Your task to perform on an android device: turn vacation reply on in the gmail app Image 0: 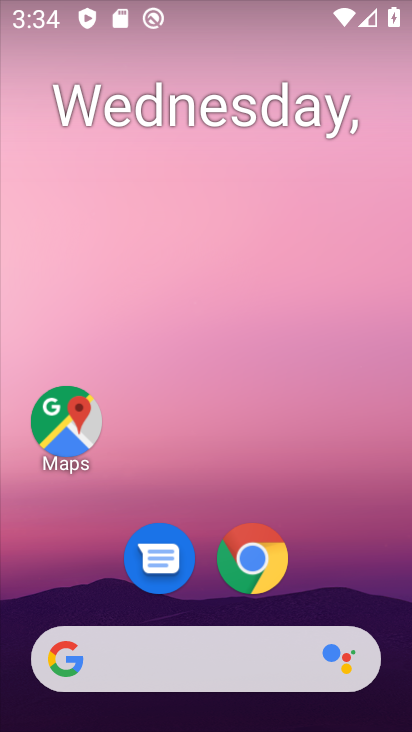
Step 0: drag from (260, 702) to (225, 289)
Your task to perform on an android device: turn vacation reply on in the gmail app Image 1: 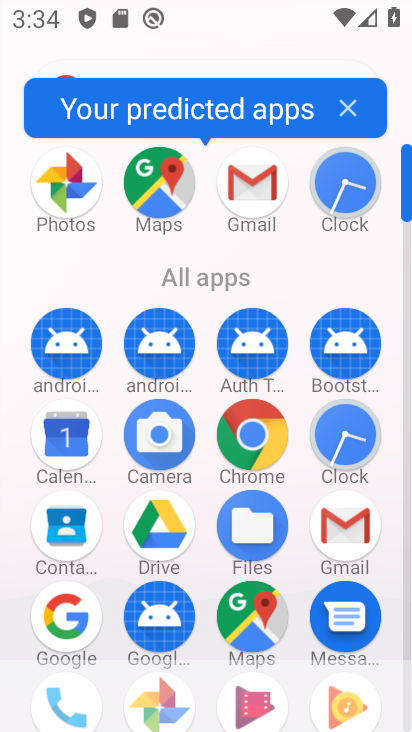
Step 1: click (240, 203)
Your task to perform on an android device: turn vacation reply on in the gmail app Image 2: 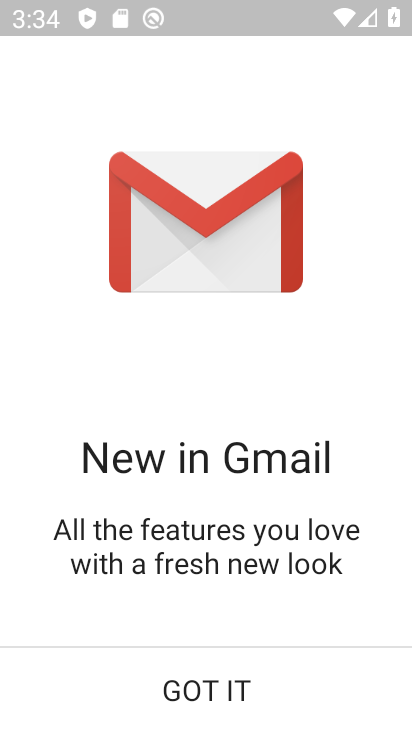
Step 2: click (202, 720)
Your task to perform on an android device: turn vacation reply on in the gmail app Image 3: 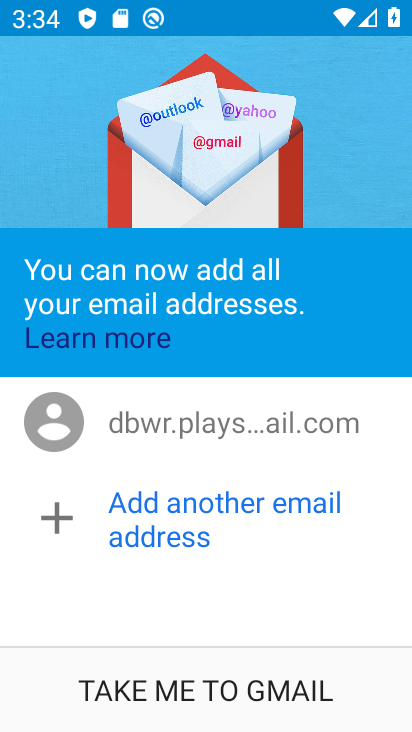
Step 3: click (195, 713)
Your task to perform on an android device: turn vacation reply on in the gmail app Image 4: 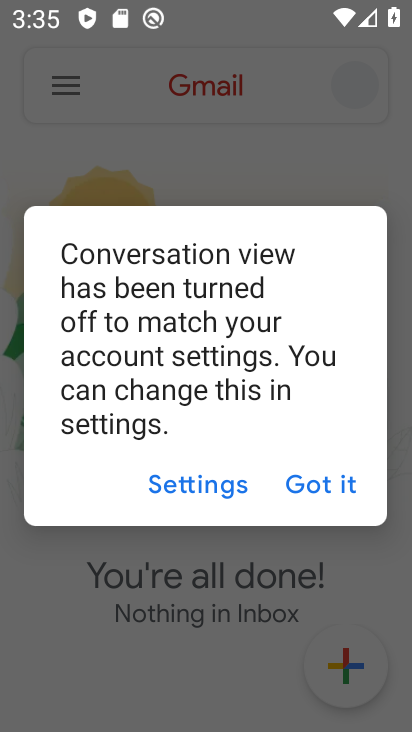
Step 4: click (324, 493)
Your task to perform on an android device: turn vacation reply on in the gmail app Image 5: 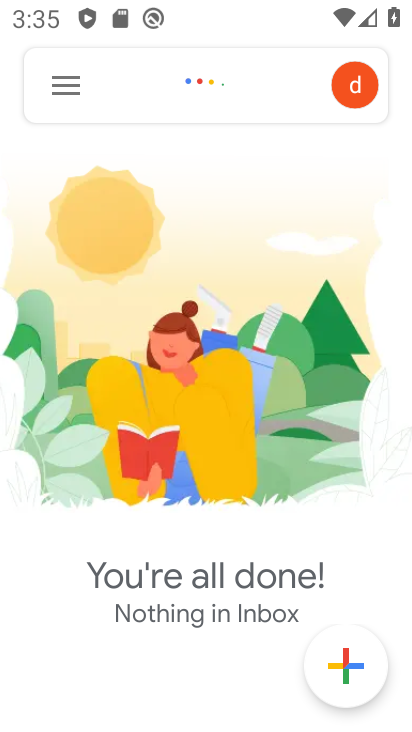
Step 5: click (71, 110)
Your task to perform on an android device: turn vacation reply on in the gmail app Image 6: 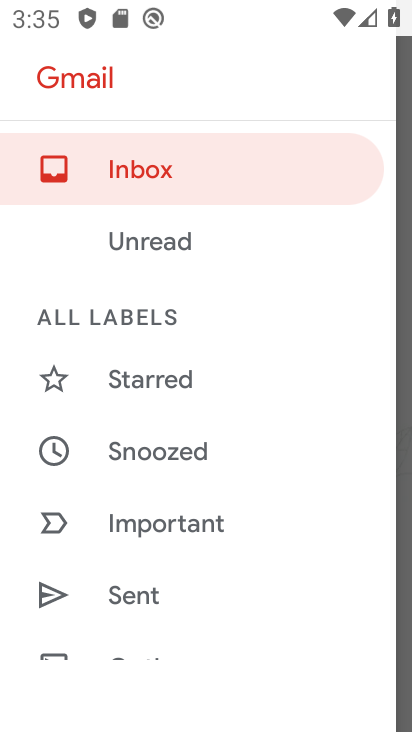
Step 6: drag from (153, 591) to (180, 3)
Your task to perform on an android device: turn vacation reply on in the gmail app Image 7: 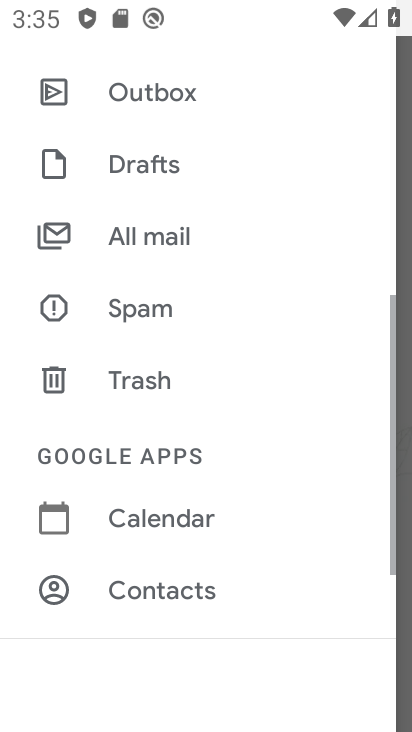
Step 7: drag from (149, 547) to (157, 417)
Your task to perform on an android device: turn vacation reply on in the gmail app Image 8: 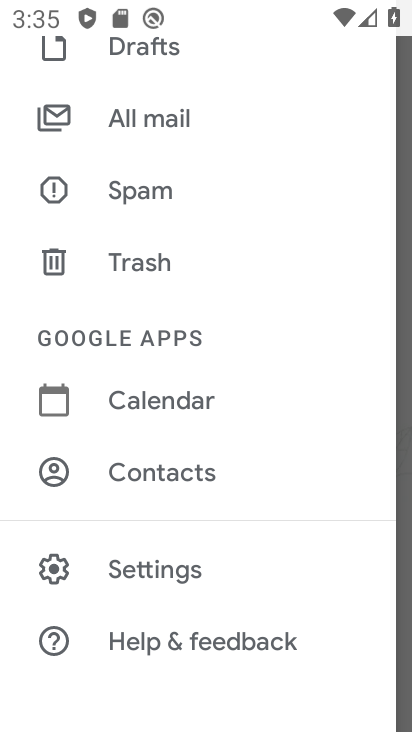
Step 8: click (123, 574)
Your task to perform on an android device: turn vacation reply on in the gmail app Image 9: 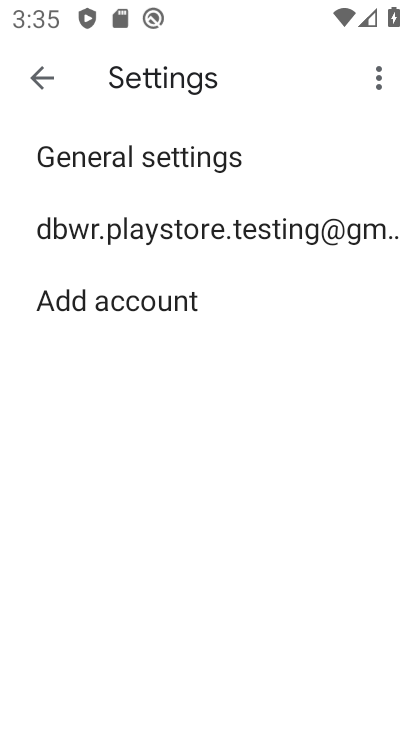
Step 9: click (163, 216)
Your task to perform on an android device: turn vacation reply on in the gmail app Image 10: 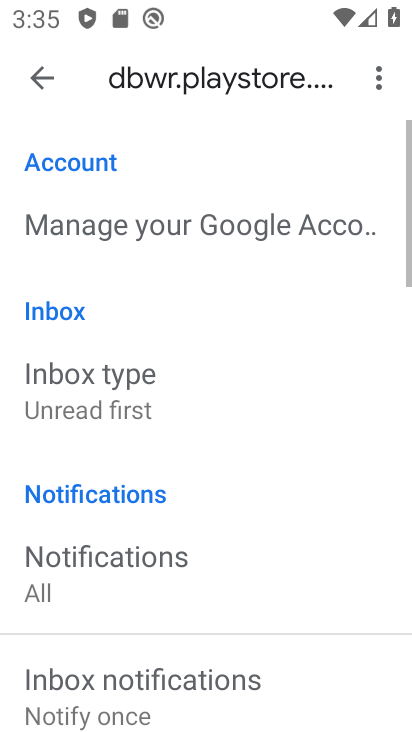
Step 10: drag from (96, 628) to (220, 44)
Your task to perform on an android device: turn vacation reply on in the gmail app Image 11: 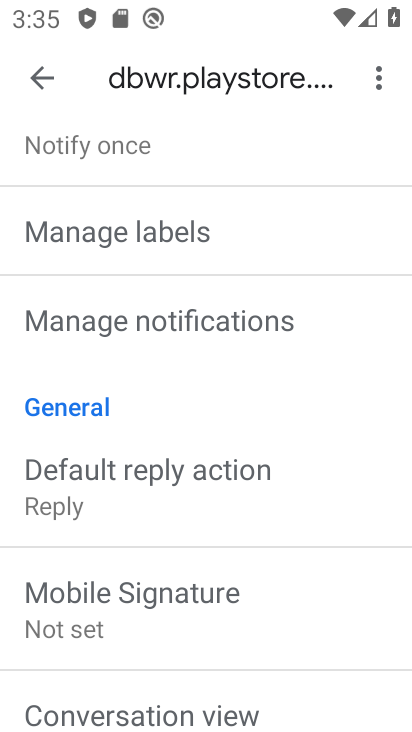
Step 11: drag from (96, 693) to (112, 598)
Your task to perform on an android device: turn vacation reply on in the gmail app Image 12: 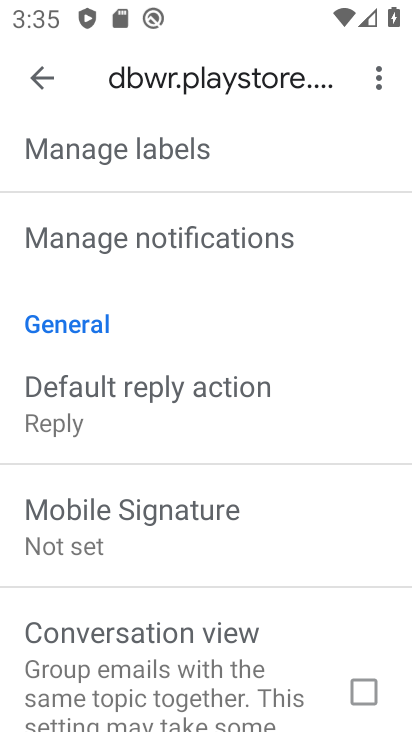
Step 12: drag from (103, 652) to (250, 99)
Your task to perform on an android device: turn vacation reply on in the gmail app Image 13: 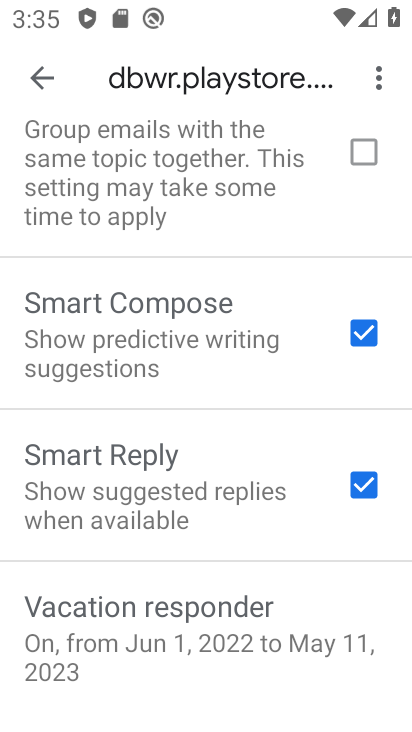
Step 13: click (106, 636)
Your task to perform on an android device: turn vacation reply on in the gmail app Image 14: 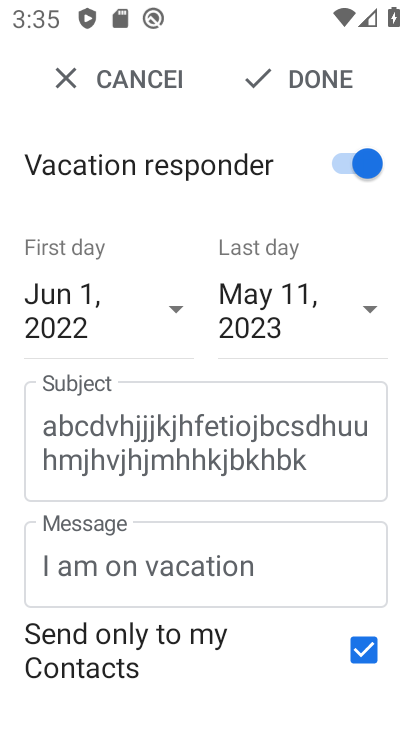
Step 14: task complete